Your task to perform on an android device: clear history in the chrome app Image 0: 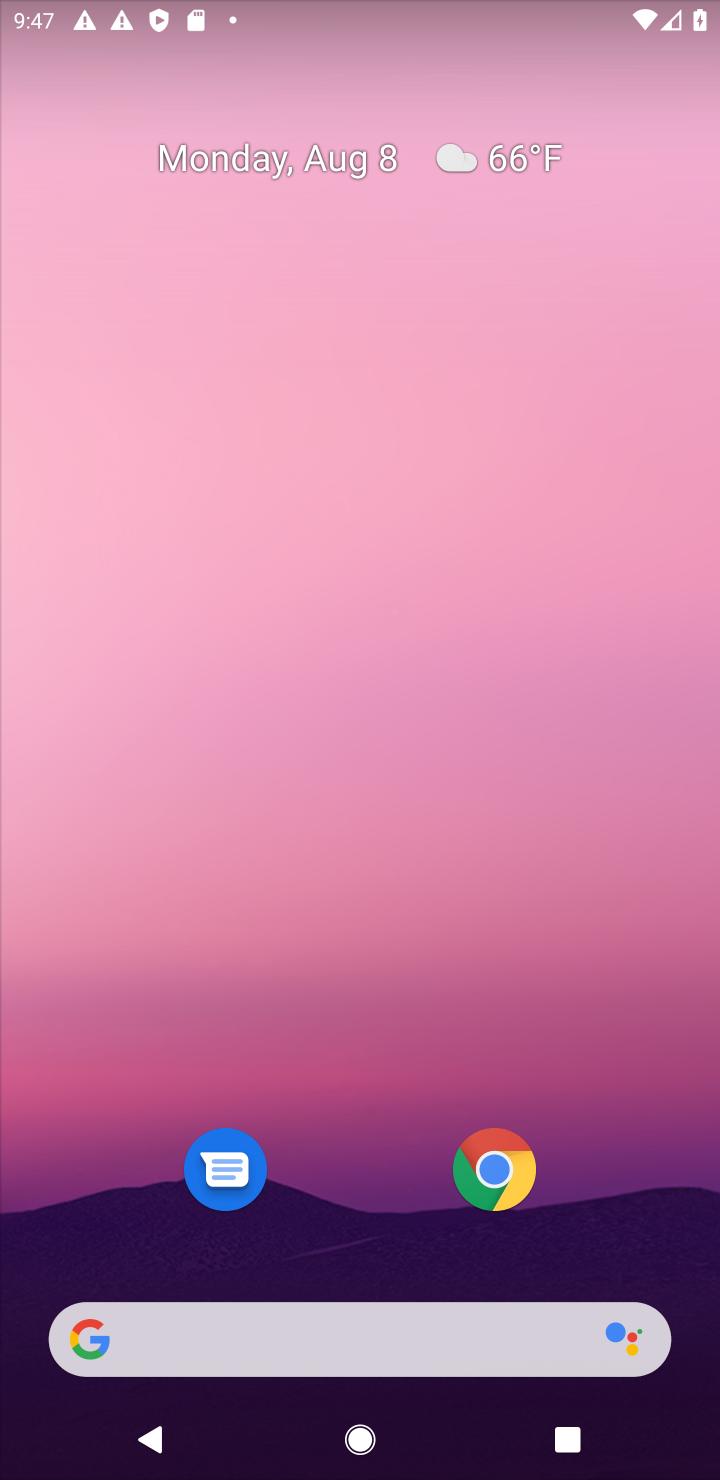
Step 0: click (482, 1166)
Your task to perform on an android device: clear history in the chrome app Image 1: 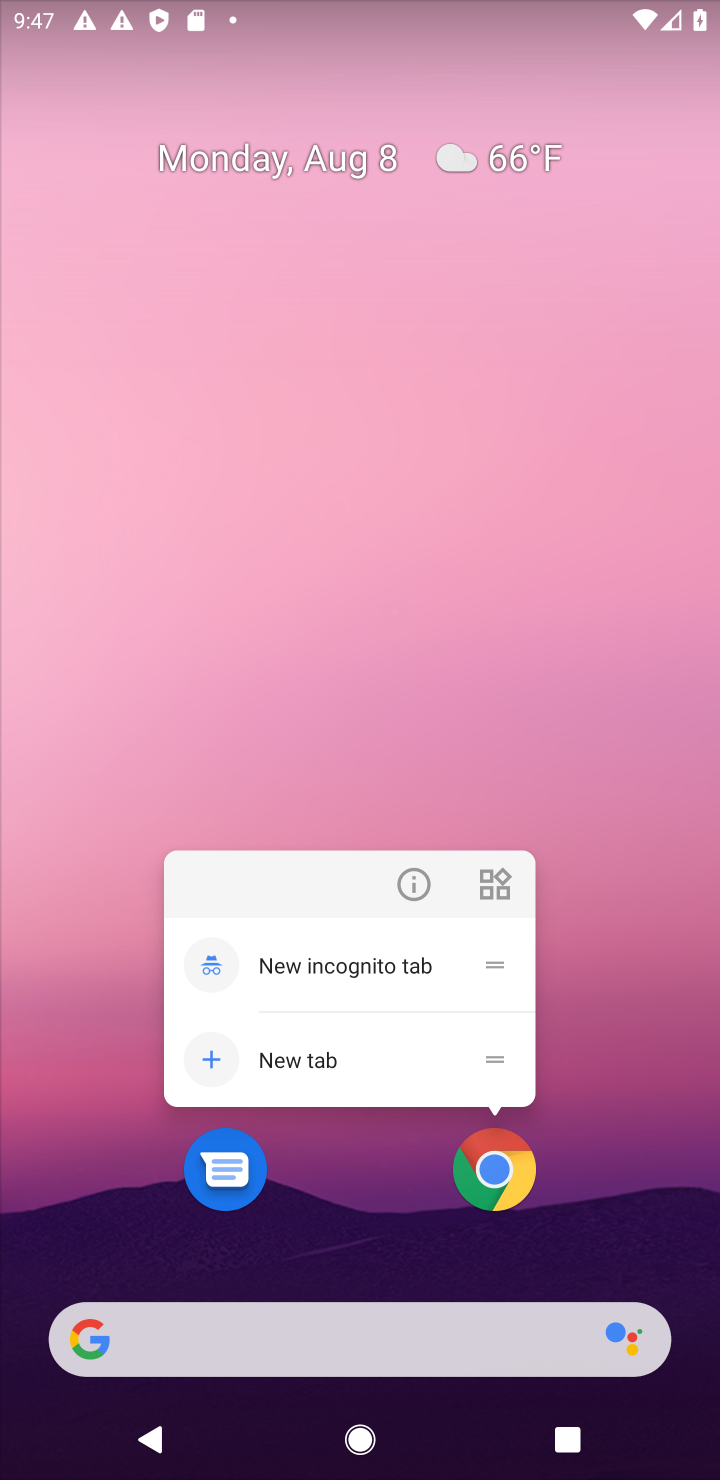
Step 1: click (480, 1179)
Your task to perform on an android device: clear history in the chrome app Image 2: 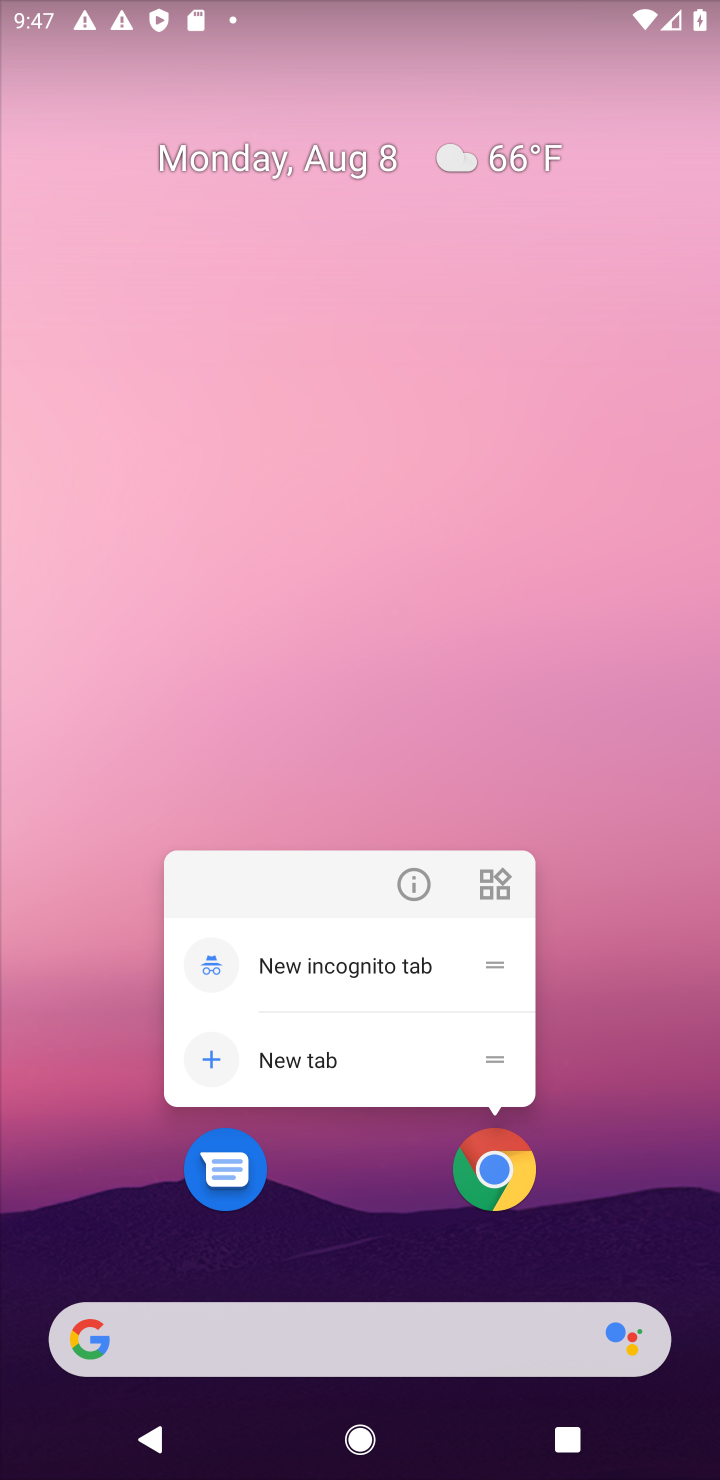
Step 2: click (497, 1188)
Your task to perform on an android device: clear history in the chrome app Image 3: 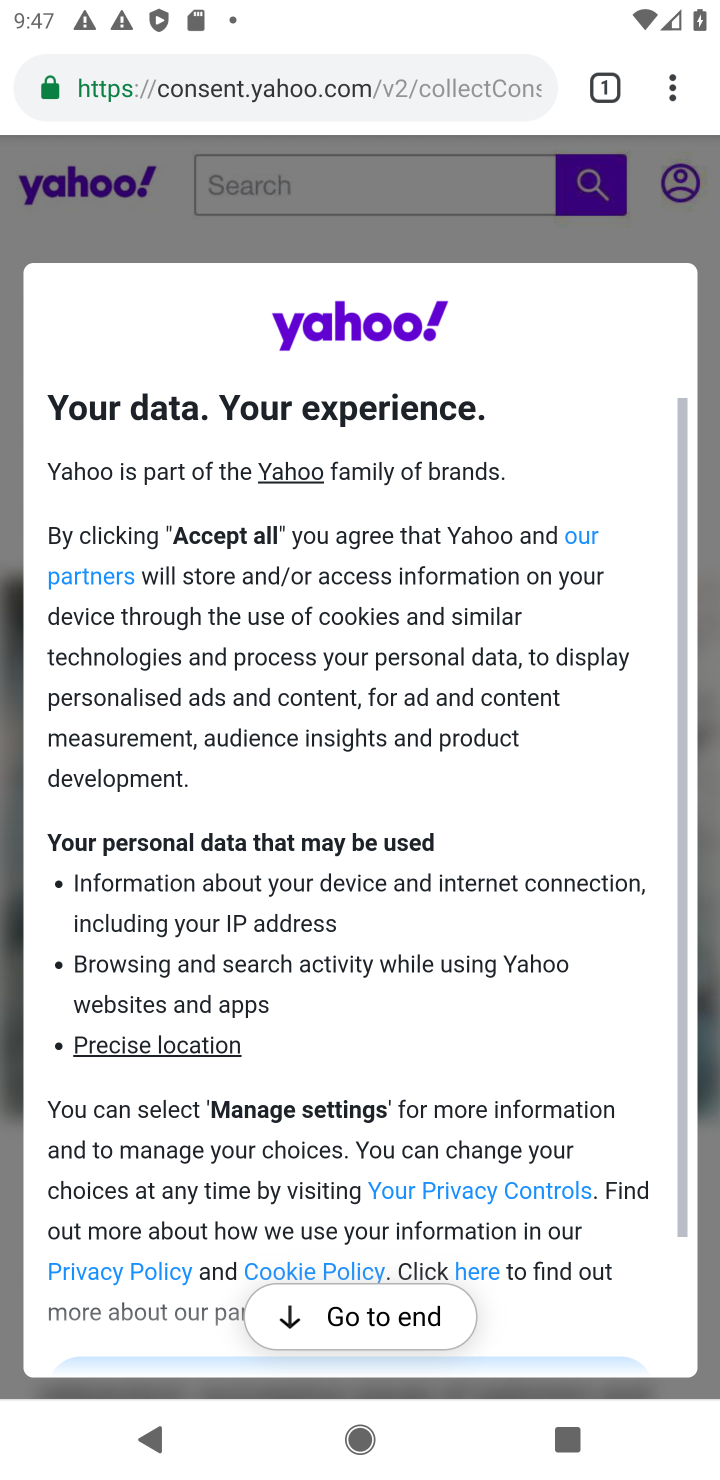
Step 3: drag from (663, 92) to (358, 512)
Your task to perform on an android device: clear history in the chrome app Image 4: 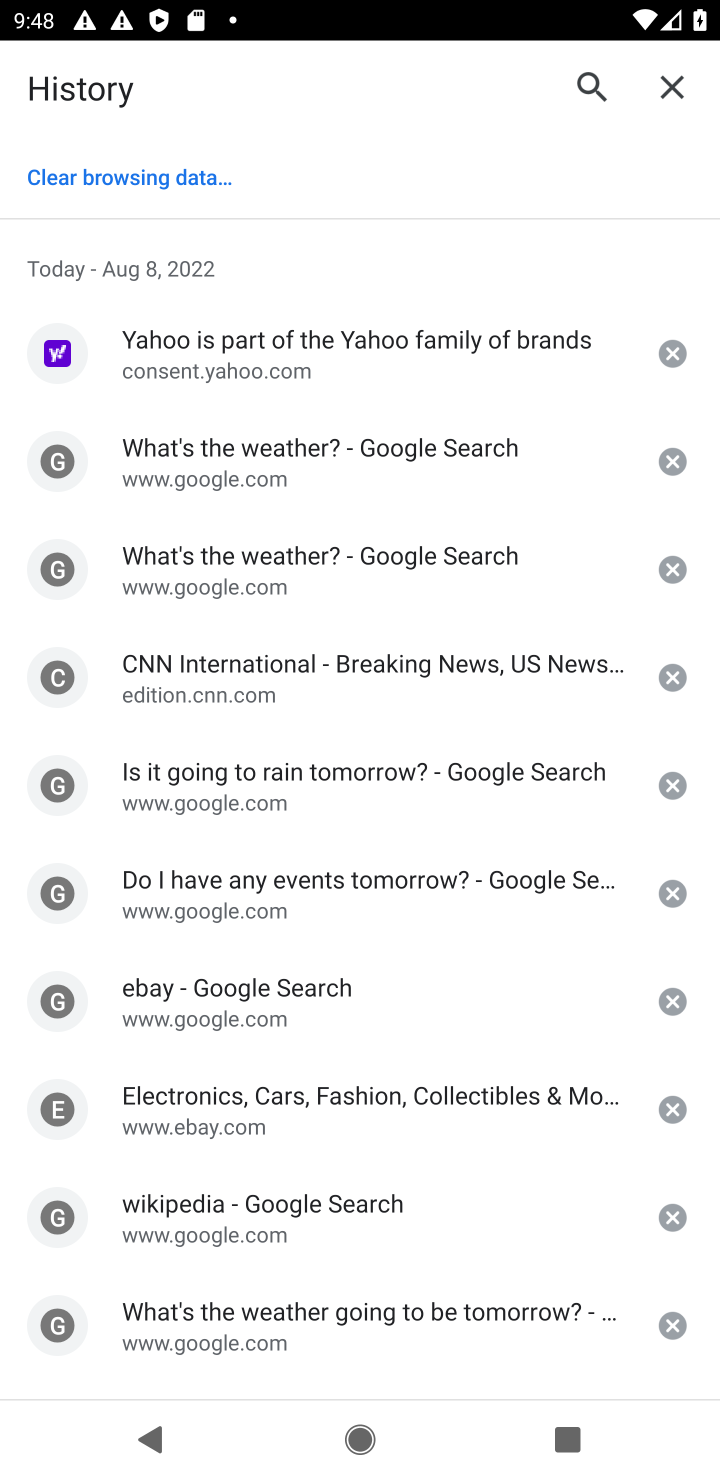
Step 4: click (180, 172)
Your task to perform on an android device: clear history in the chrome app Image 5: 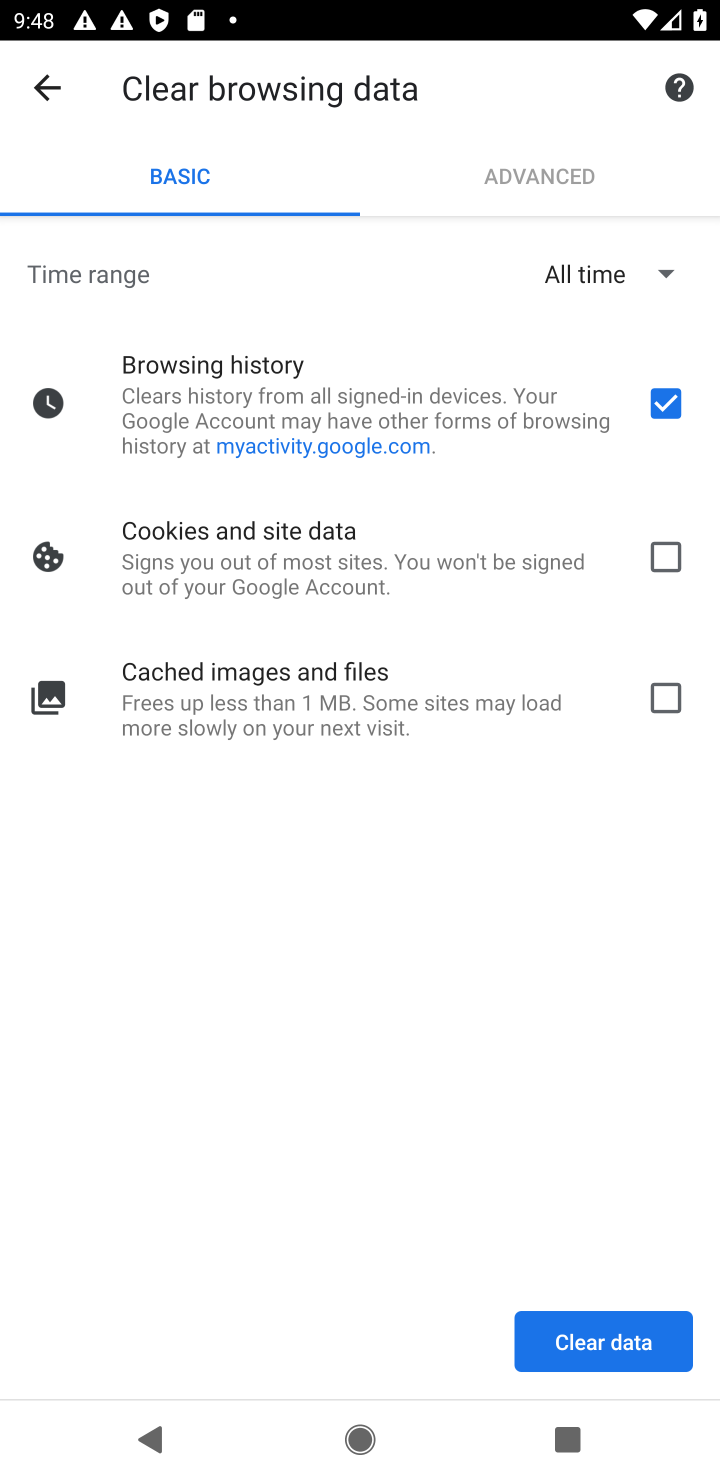
Step 5: click (659, 554)
Your task to perform on an android device: clear history in the chrome app Image 6: 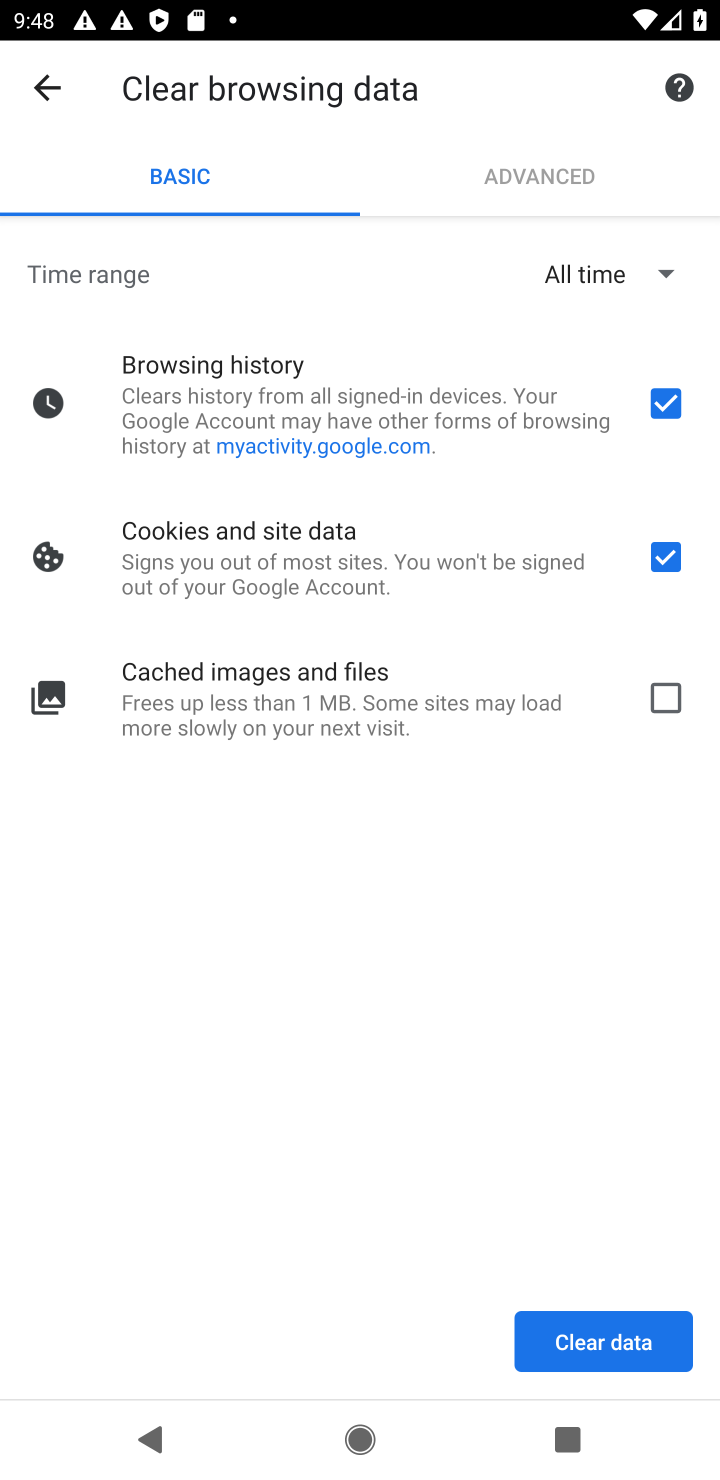
Step 6: click (673, 700)
Your task to perform on an android device: clear history in the chrome app Image 7: 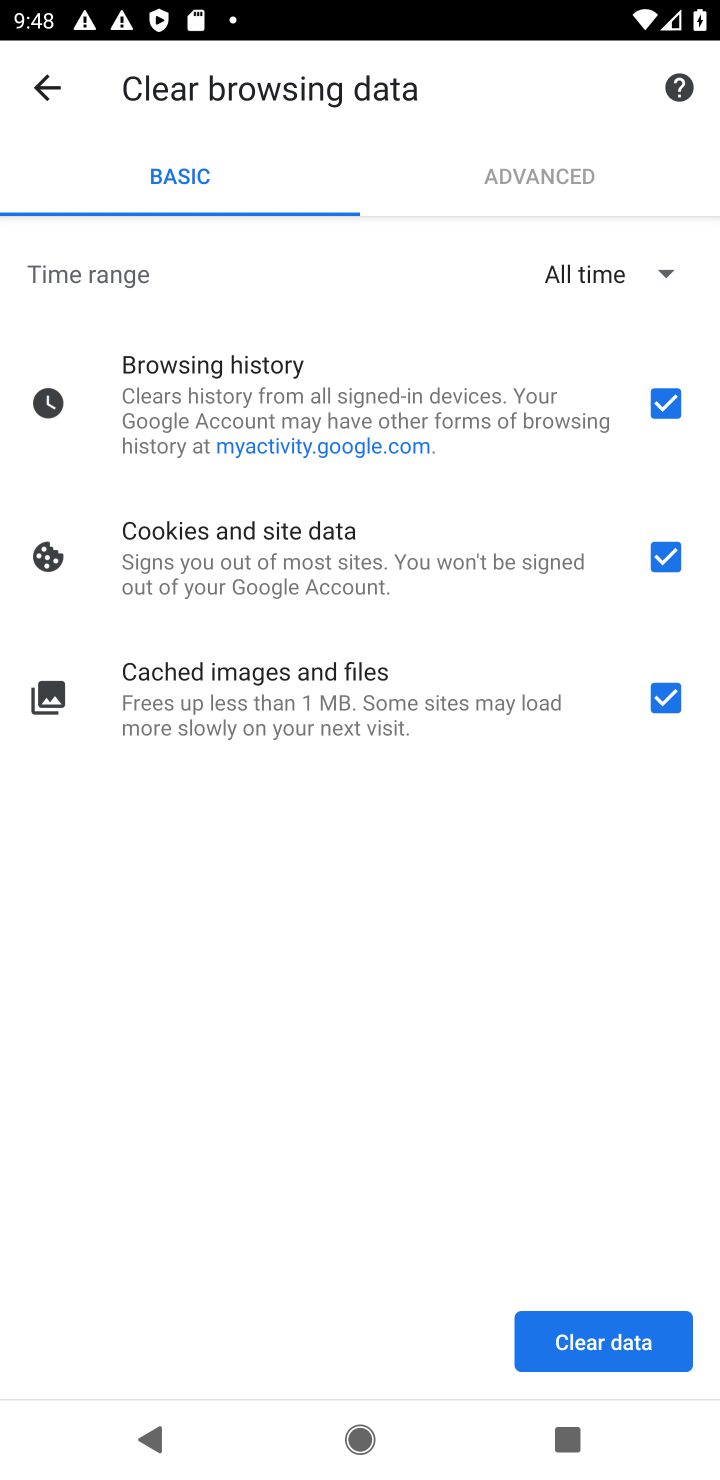
Step 7: click (614, 1346)
Your task to perform on an android device: clear history in the chrome app Image 8: 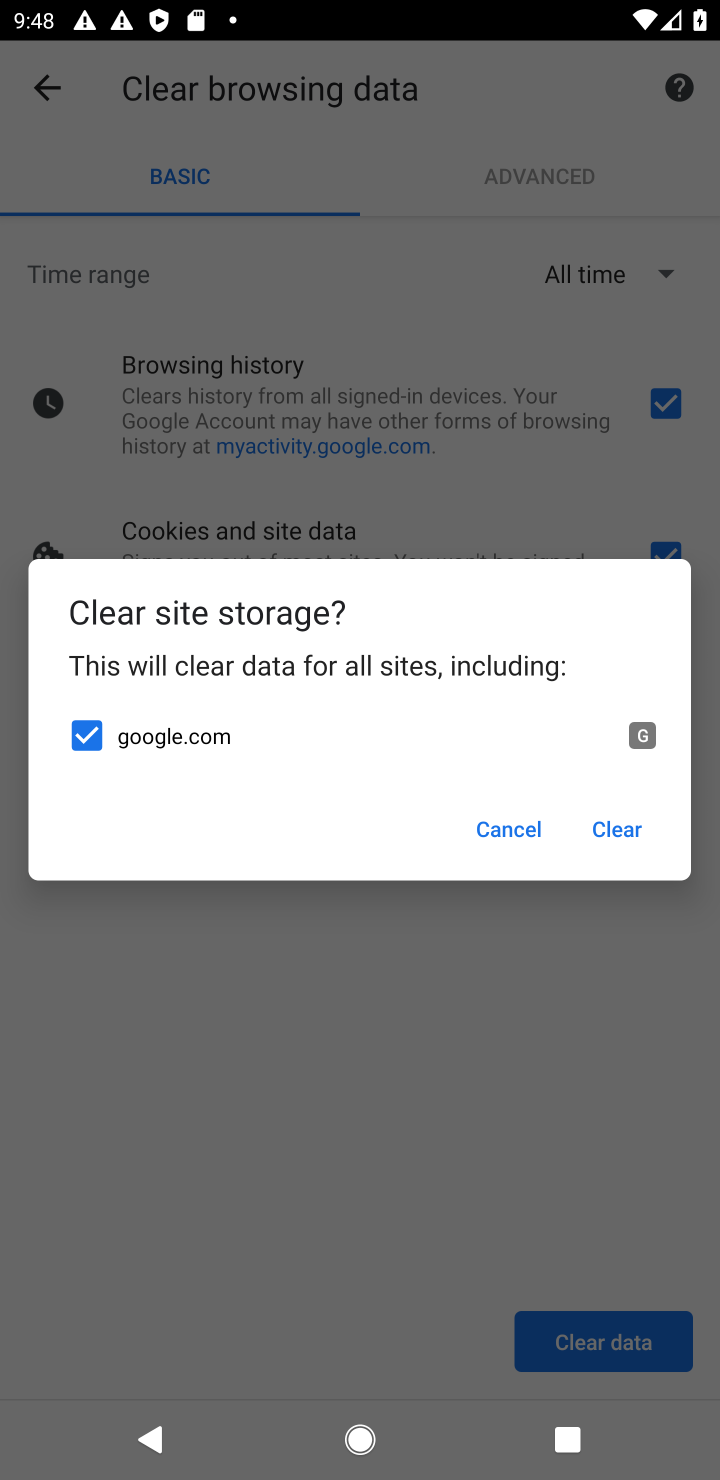
Step 8: click (603, 826)
Your task to perform on an android device: clear history in the chrome app Image 9: 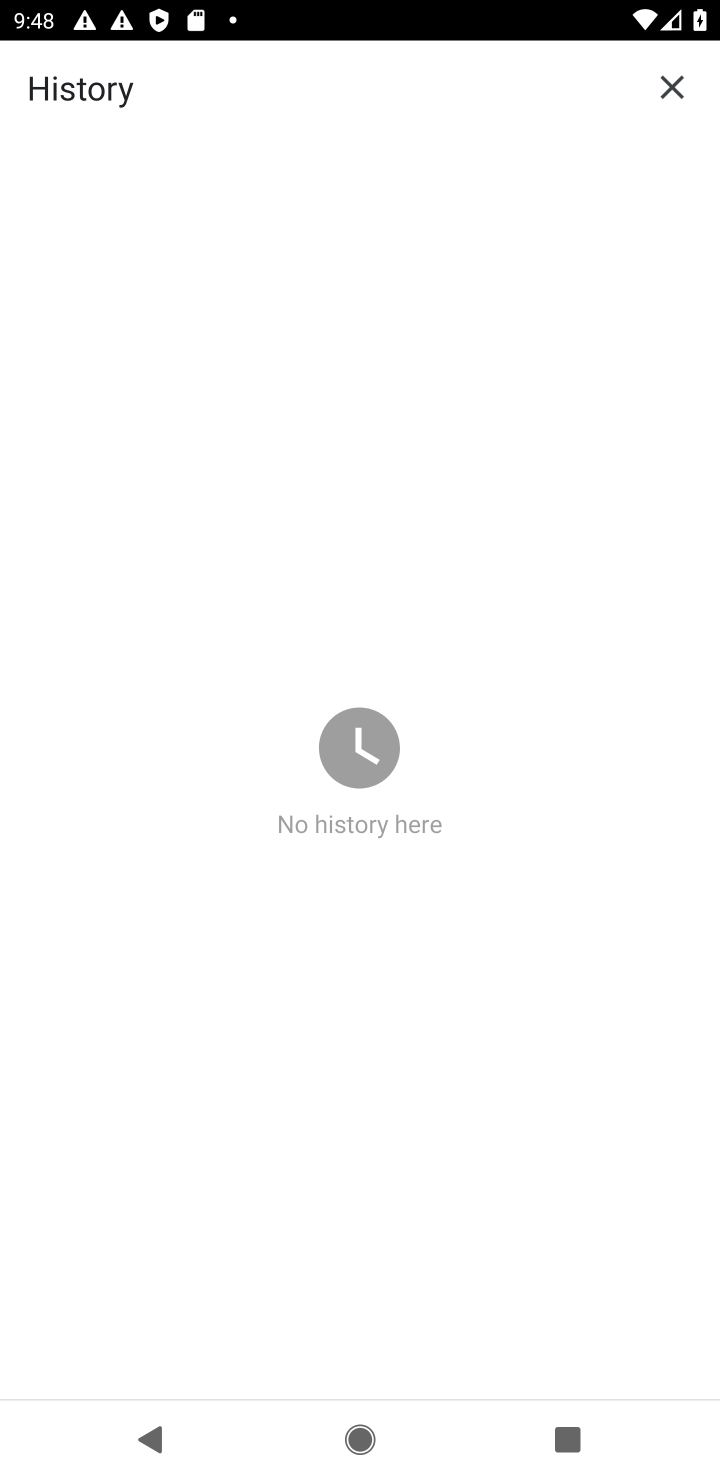
Step 9: task complete